Your task to perform on an android device: Go to Google Image 0: 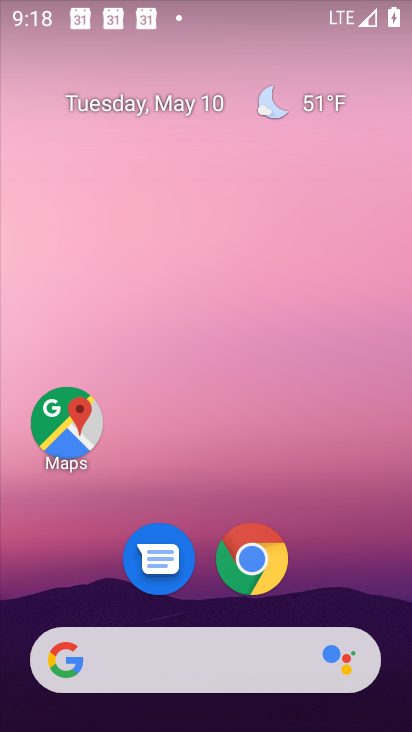
Step 0: drag from (350, 573) to (277, 51)
Your task to perform on an android device: Go to Google Image 1: 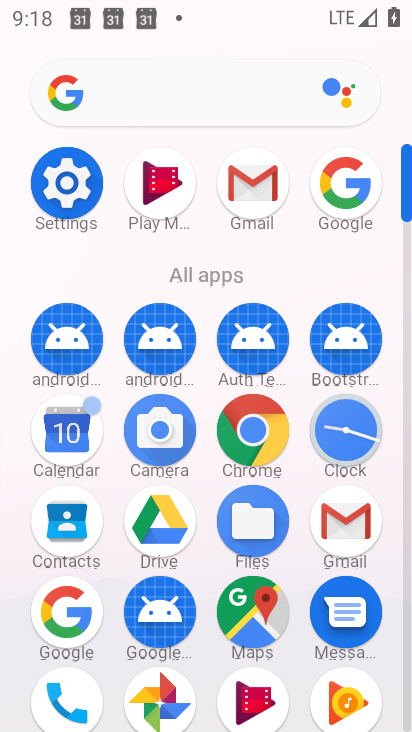
Step 1: click (339, 183)
Your task to perform on an android device: Go to Google Image 2: 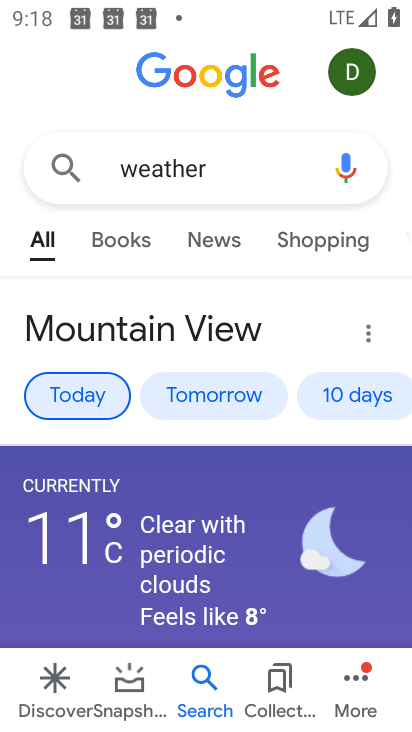
Step 2: task complete